Your task to perform on an android device: change the clock display to analog Image 0: 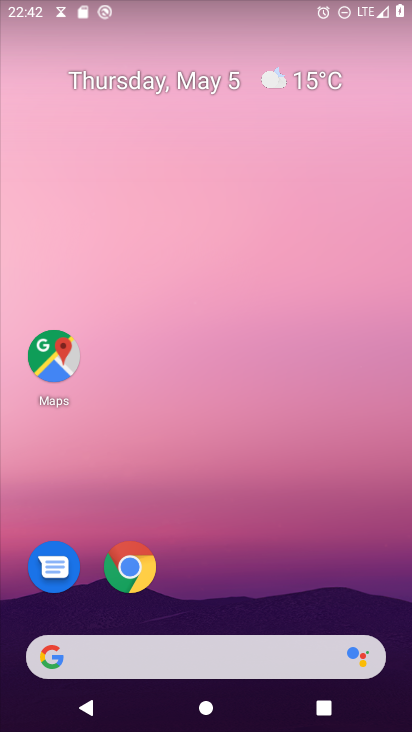
Step 0: drag from (224, 724) to (217, 174)
Your task to perform on an android device: change the clock display to analog Image 1: 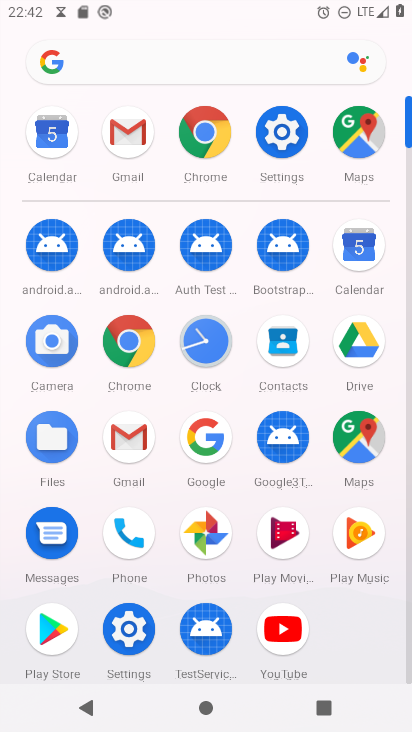
Step 1: click (203, 344)
Your task to perform on an android device: change the clock display to analog Image 2: 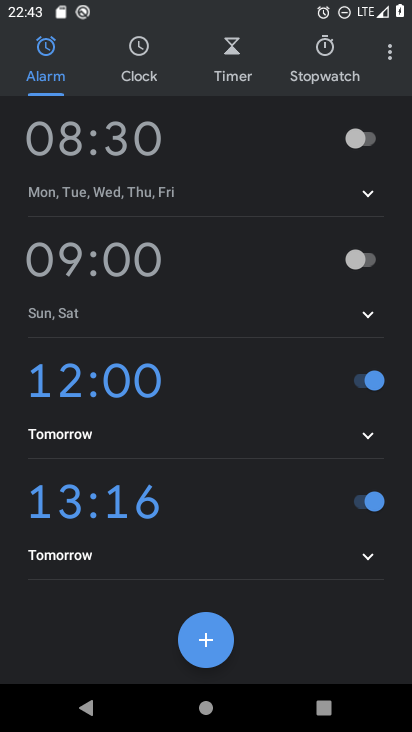
Step 2: click (392, 53)
Your task to perform on an android device: change the clock display to analog Image 3: 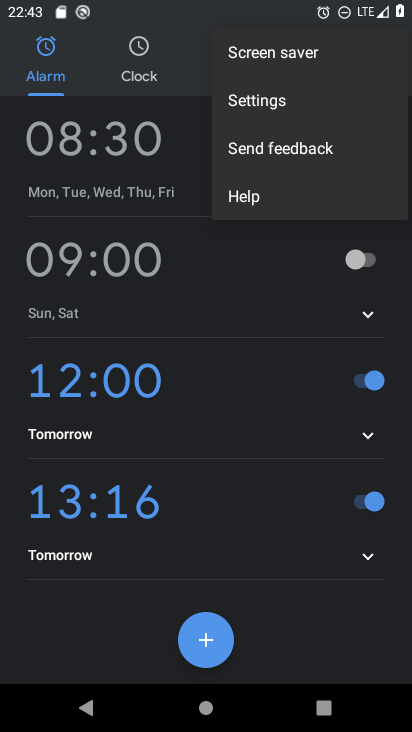
Step 3: click (255, 100)
Your task to perform on an android device: change the clock display to analog Image 4: 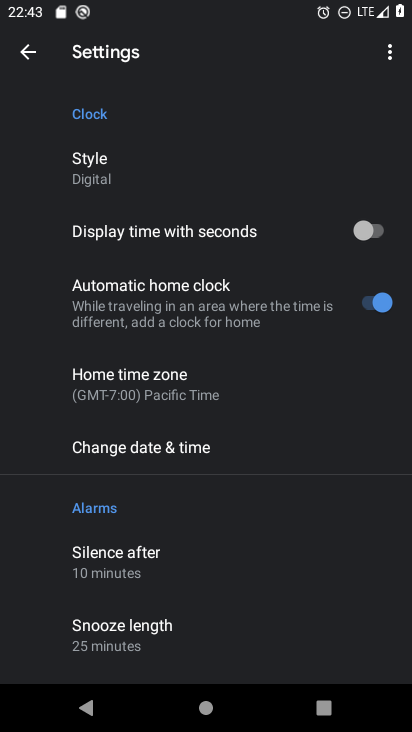
Step 4: click (96, 171)
Your task to perform on an android device: change the clock display to analog Image 5: 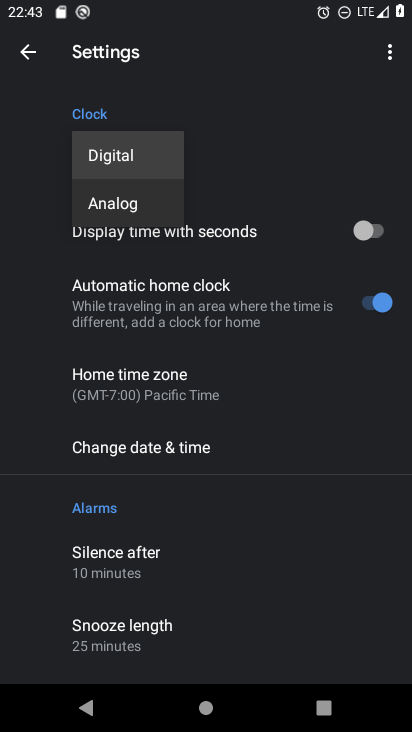
Step 5: click (117, 195)
Your task to perform on an android device: change the clock display to analog Image 6: 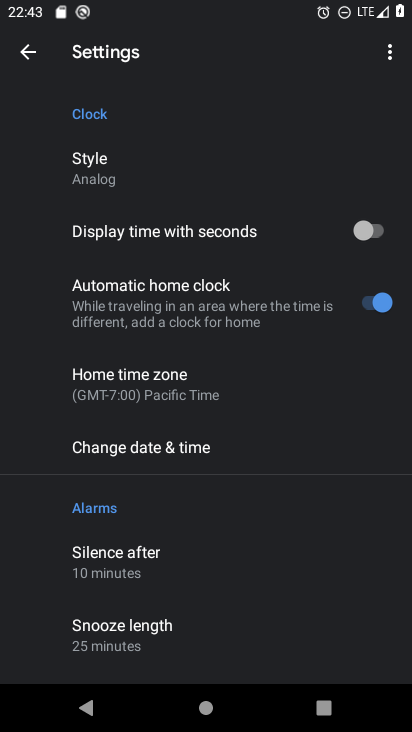
Step 6: task complete